Your task to perform on an android device: Open Google Maps and go to "Timeline" Image 0: 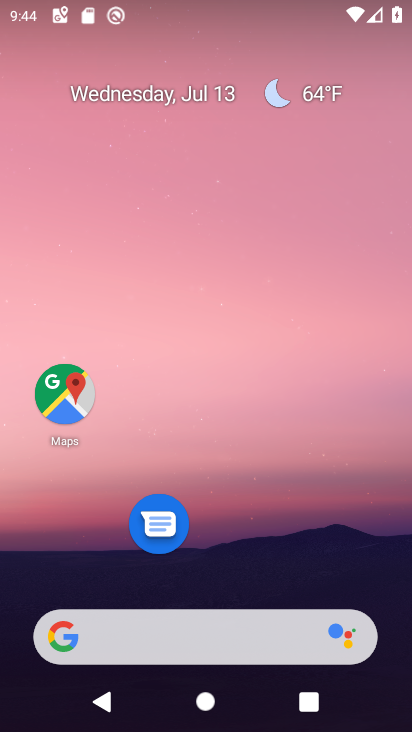
Step 0: drag from (213, 572) to (208, 162)
Your task to perform on an android device: Open Google Maps and go to "Timeline" Image 1: 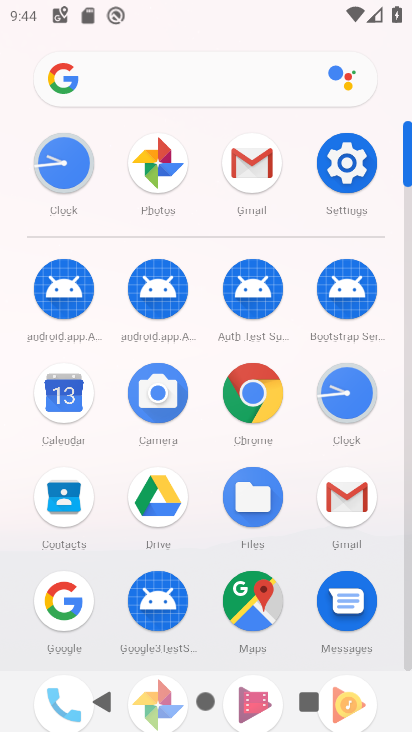
Step 1: click (271, 588)
Your task to perform on an android device: Open Google Maps and go to "Timeline" Image 2: 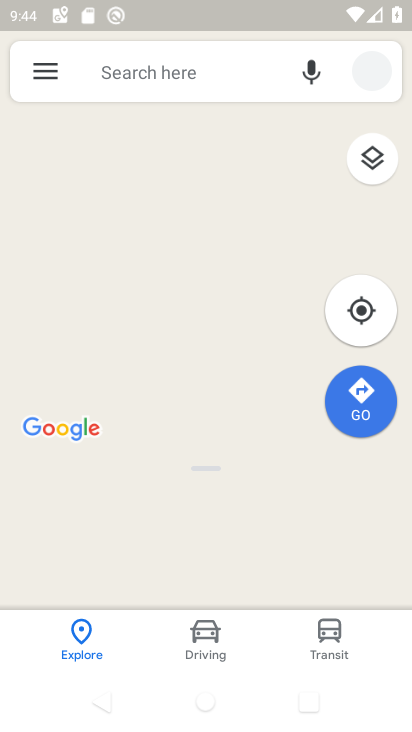
Step 2: click (46, 64)
Your task to perform on an android device: Open Google Maps and go to "Timeline" Image 3: 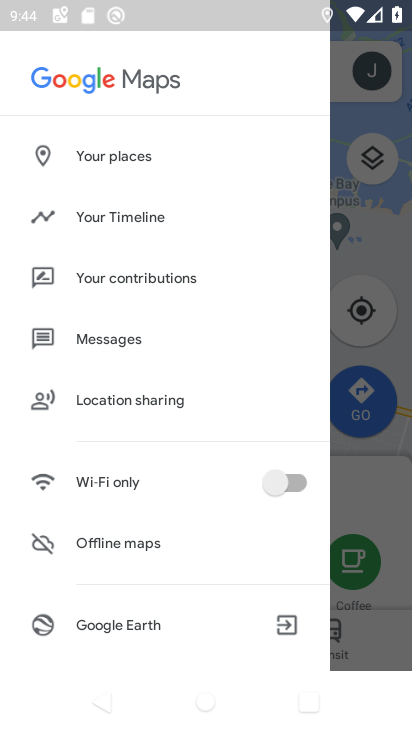
Step 3: click (93, 228)
Your task to perform on an android device: Open Google Maps and go to "Timeline" Image 4: 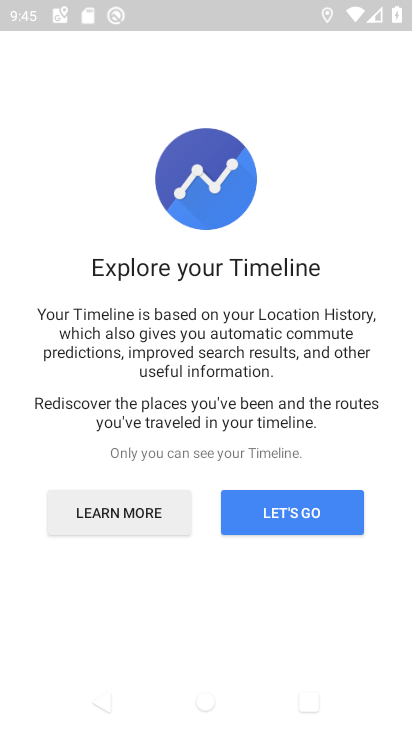
Step 4: click (289, 526)
Your task to perform on an android device: Open Google Maps and go to "Timeline" Image 5: 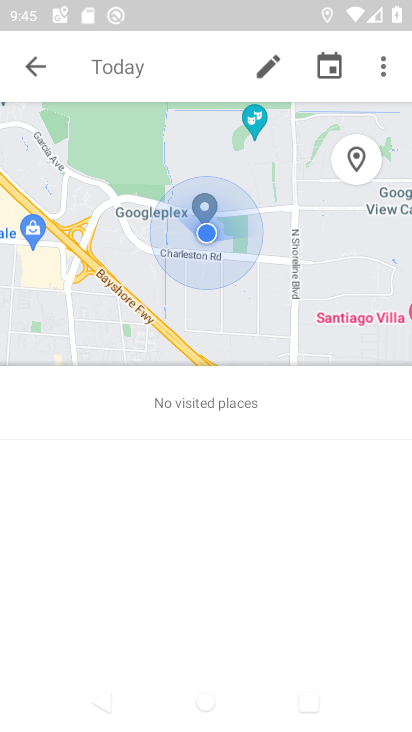
Step 5: task complete